Your task to perform on an android device: Search for flights from Buenos aires to Seoul Image 0: 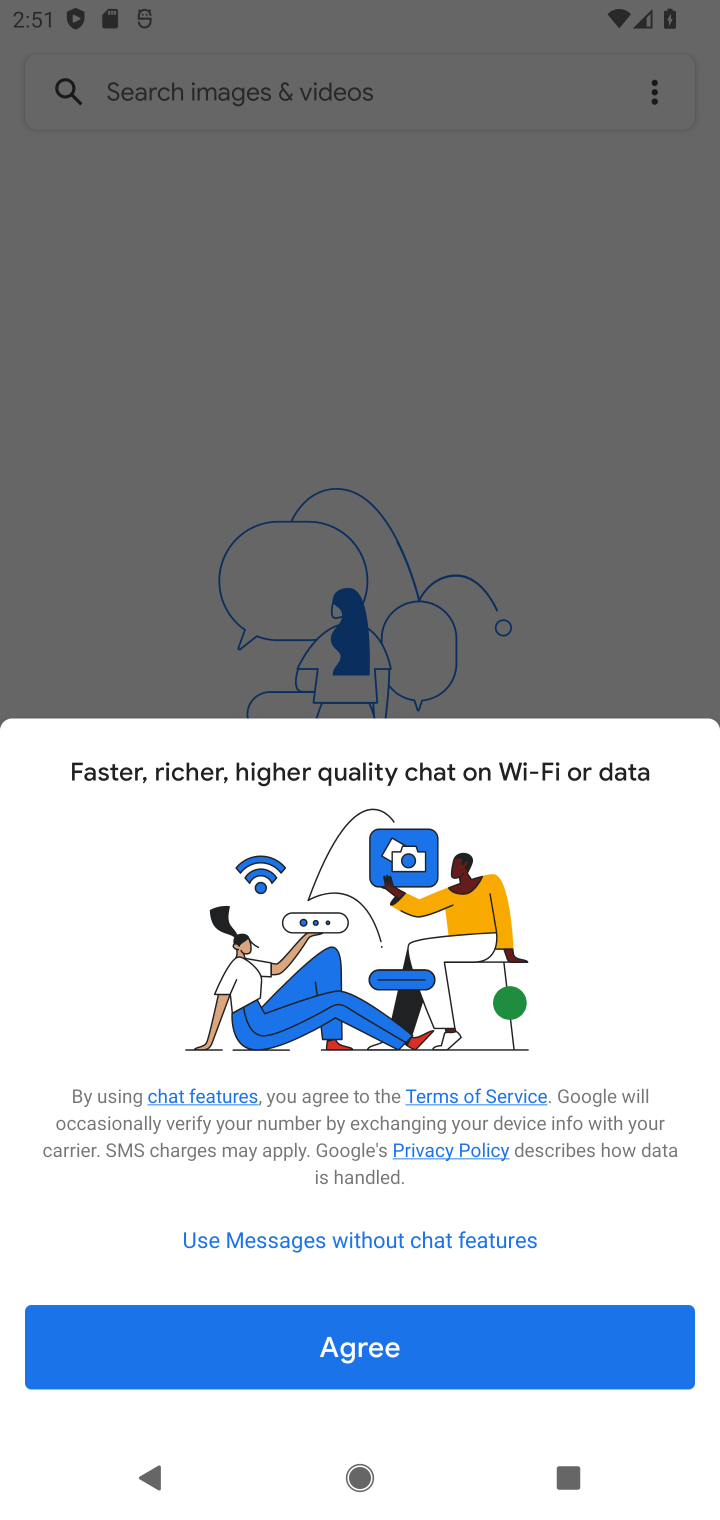
Step 0: press home button
Your task to perform on an android device: Search for flights from Buenos aires to Seoul Image 1: 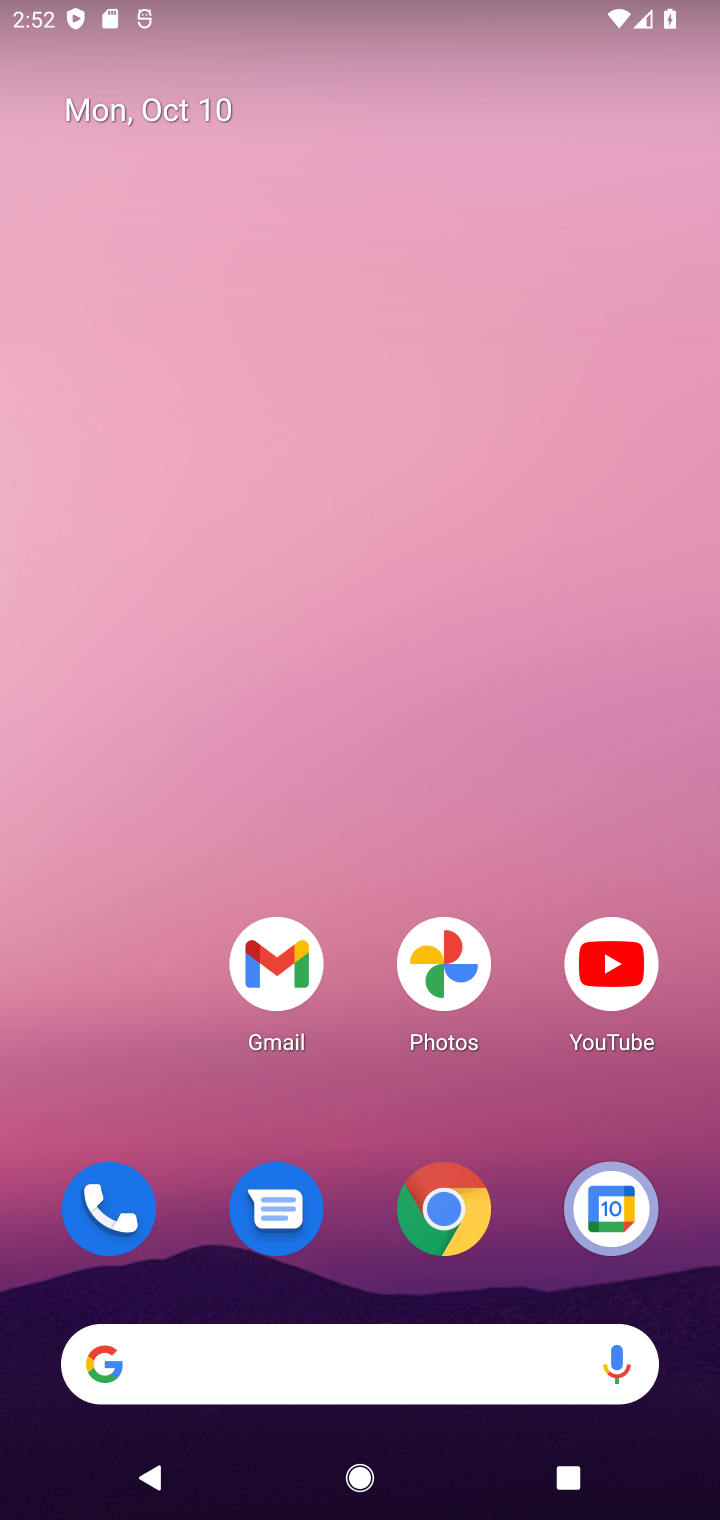
Step 1: click (446, 1206)
Your task to perform on an android device: Search for flights from Buenos aires to Seoul Image 2: 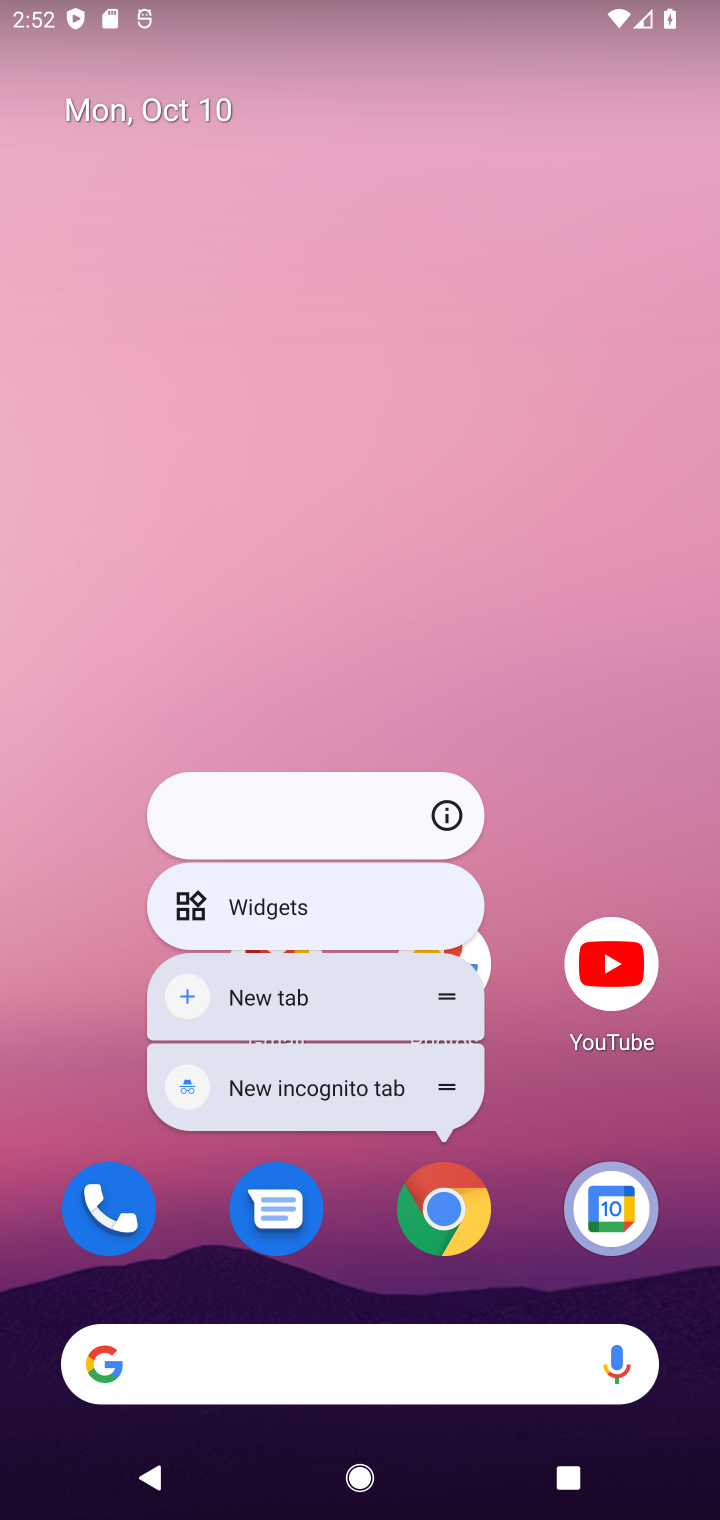
Step 2: click (446, 1206)
Your task to perform on an android device: Search for flights from Buenos aires to Seoul Image 3: 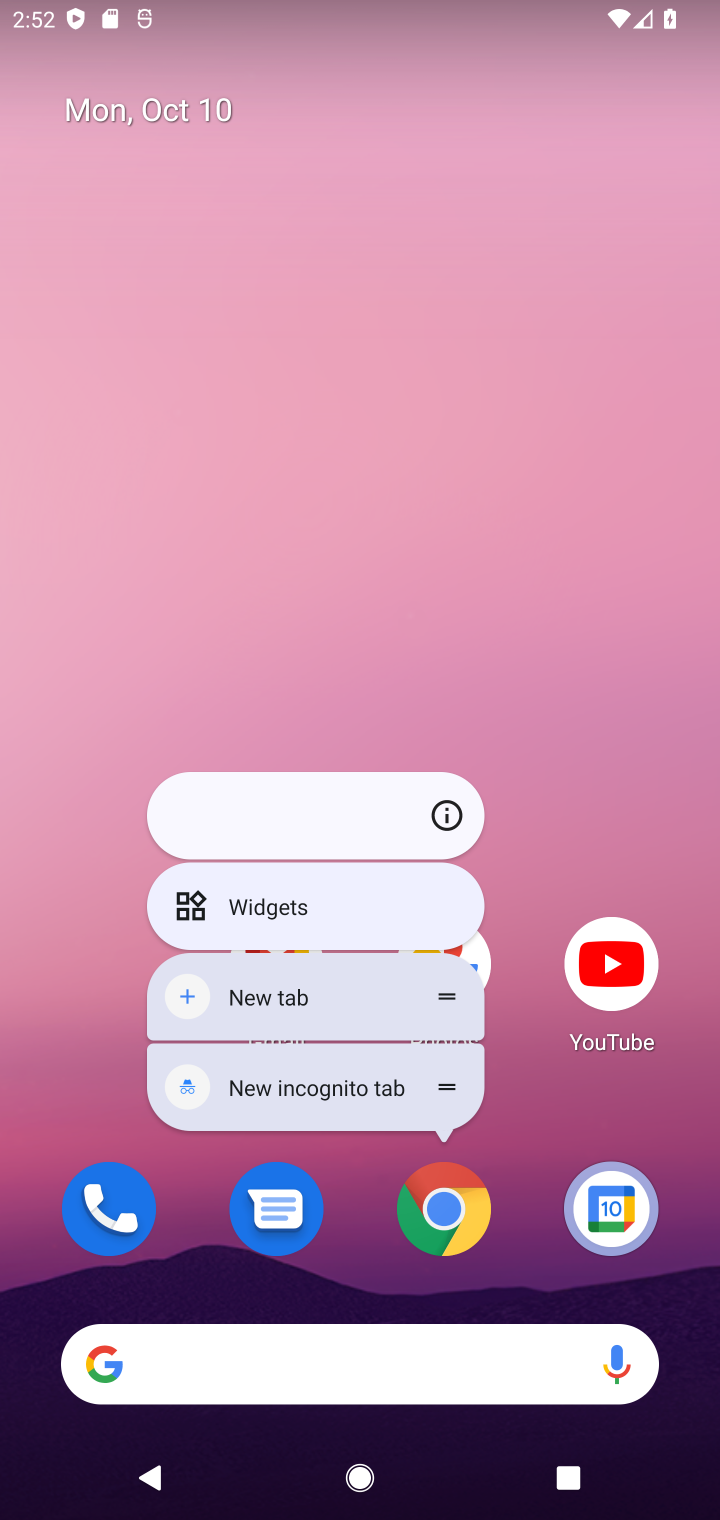
Step 3: click (463, 1244)
Your task to perform on an android device: Search for flights from Buenos aires to Seoul Image 4: 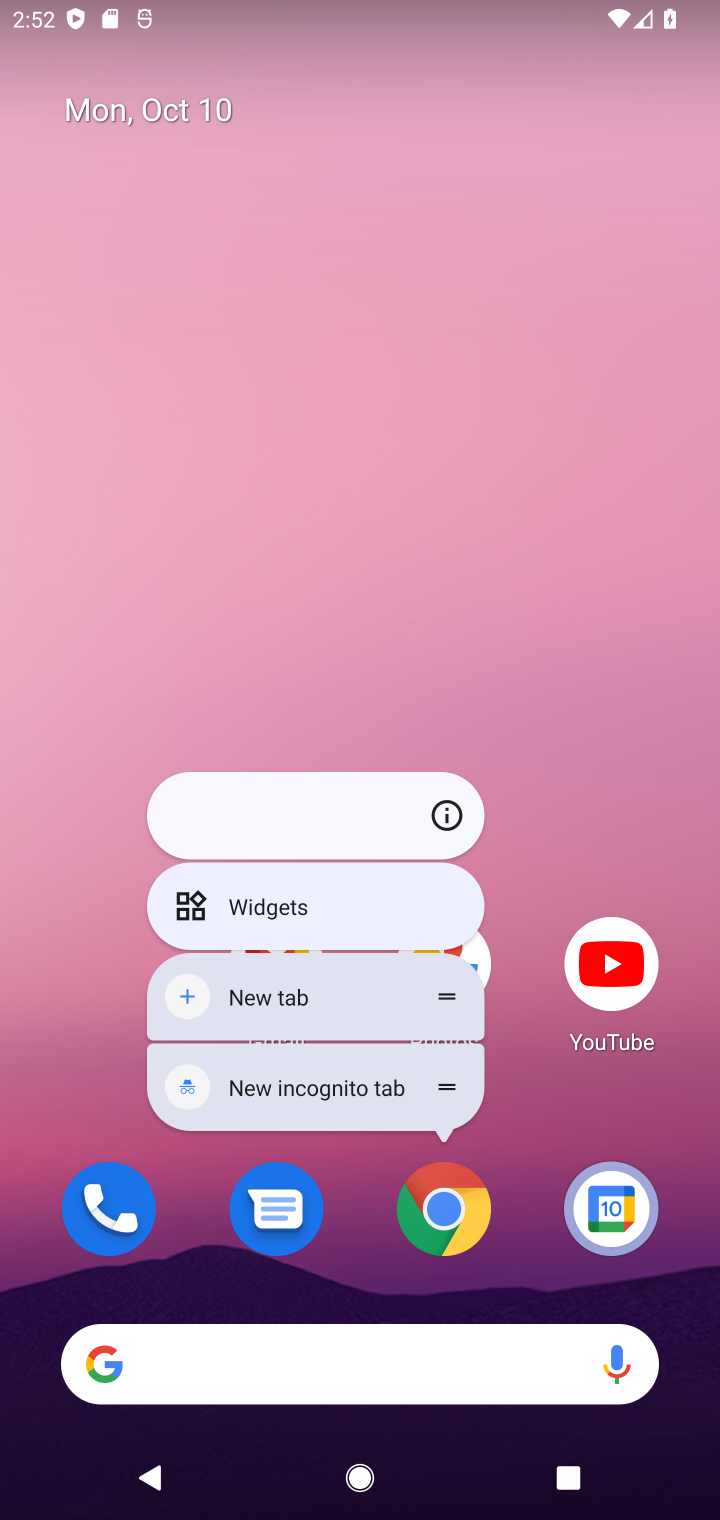
Step 4: click (463, 1244)
Your task to perform on an android device: Search for flights from Buenos aires to Seoul Image 5: 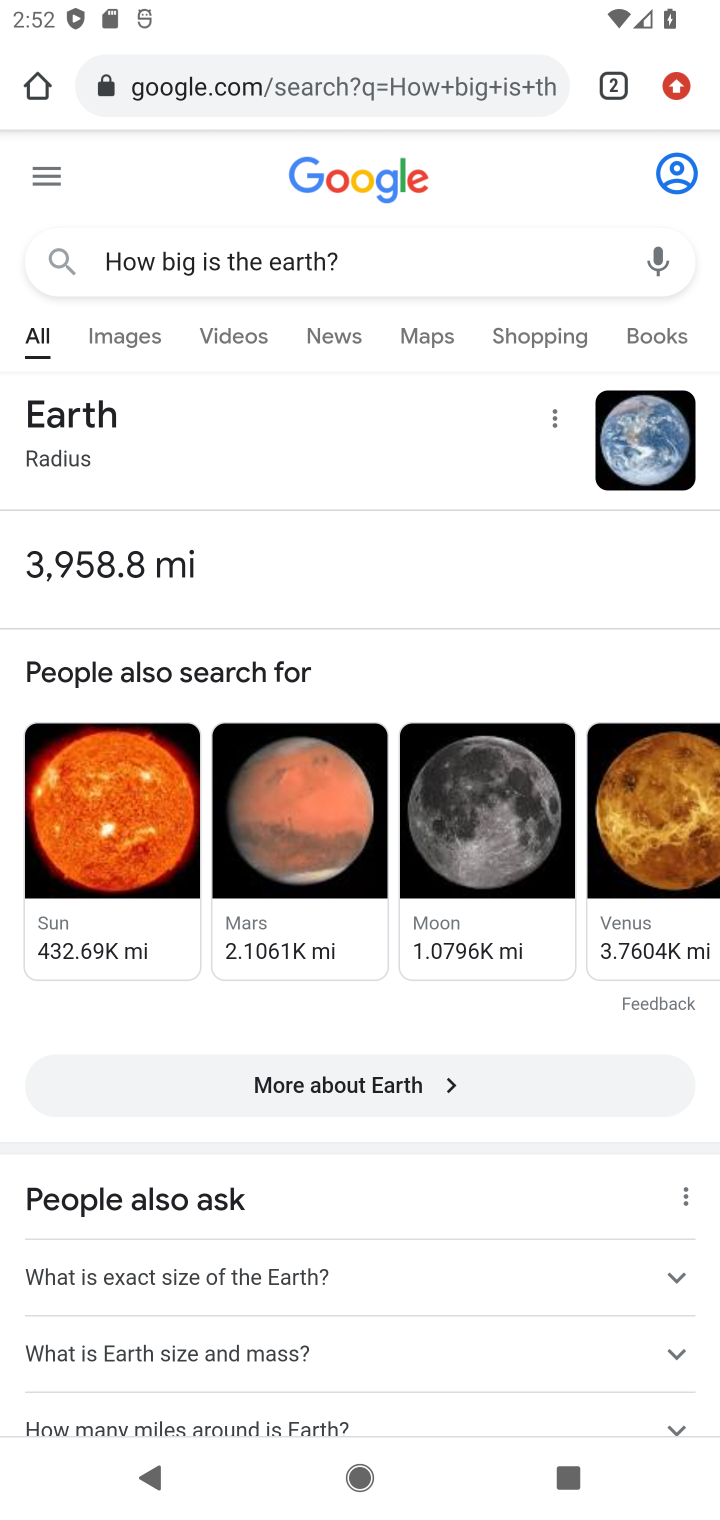
Step 5: click (492, 249)
Your task to perform on an android device: Search for flights from Buenos aires to Seoul Image 6: 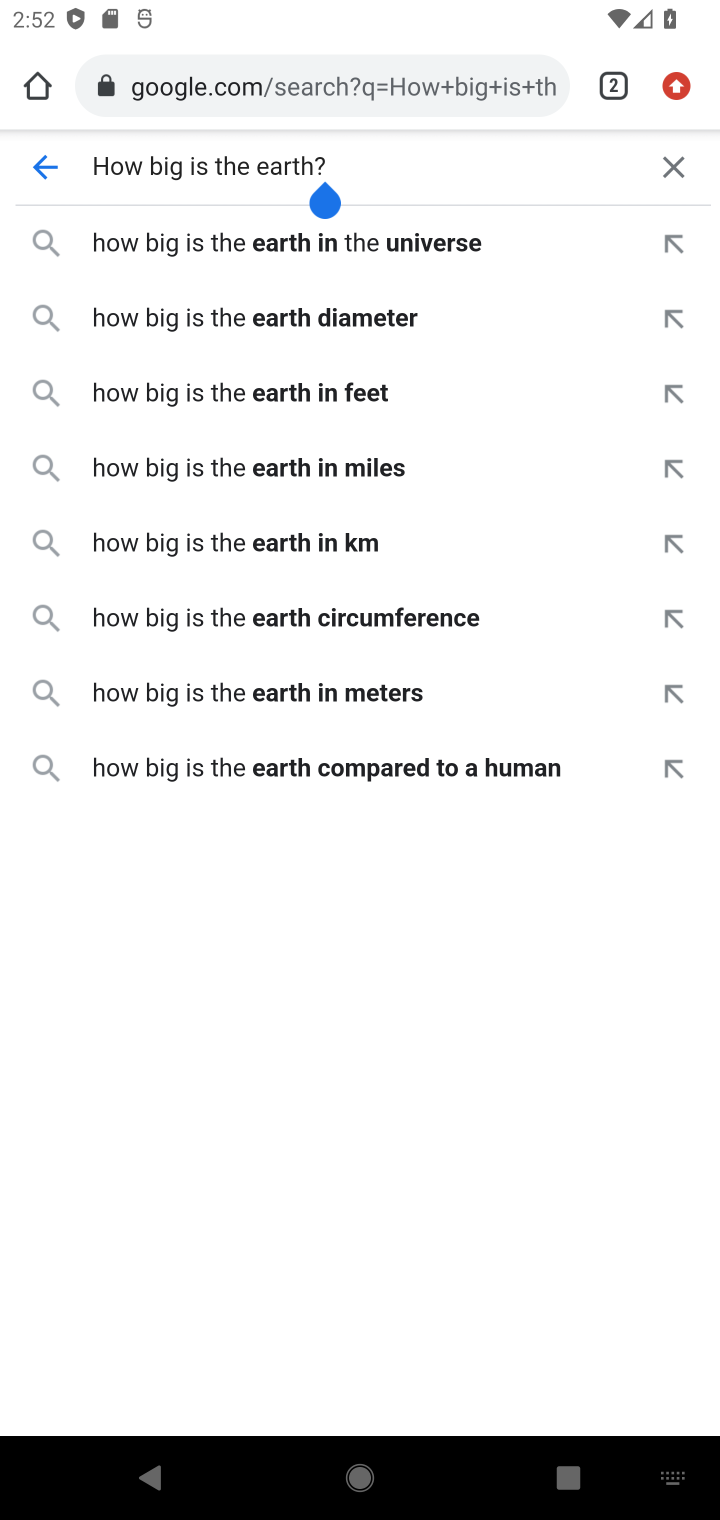
Step 6: click (667, 167)
Your task to perform on an android device: Search for flights from Buenos aires to Seoul Image 7: 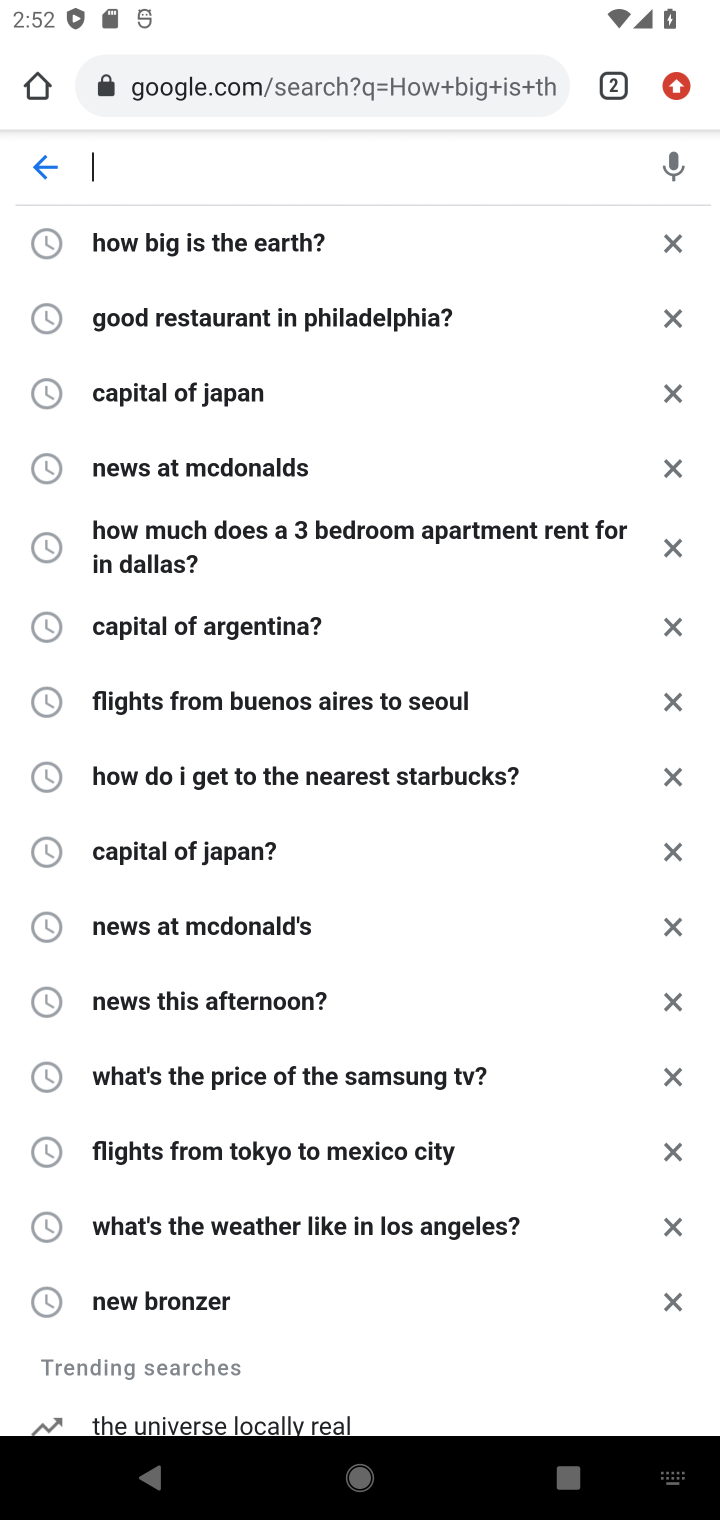
Step 7: type " flights from Buenos aires to Seoul"
Your task to perform on an android device: Search for flights from Buenos aires to Seoul Image 8: 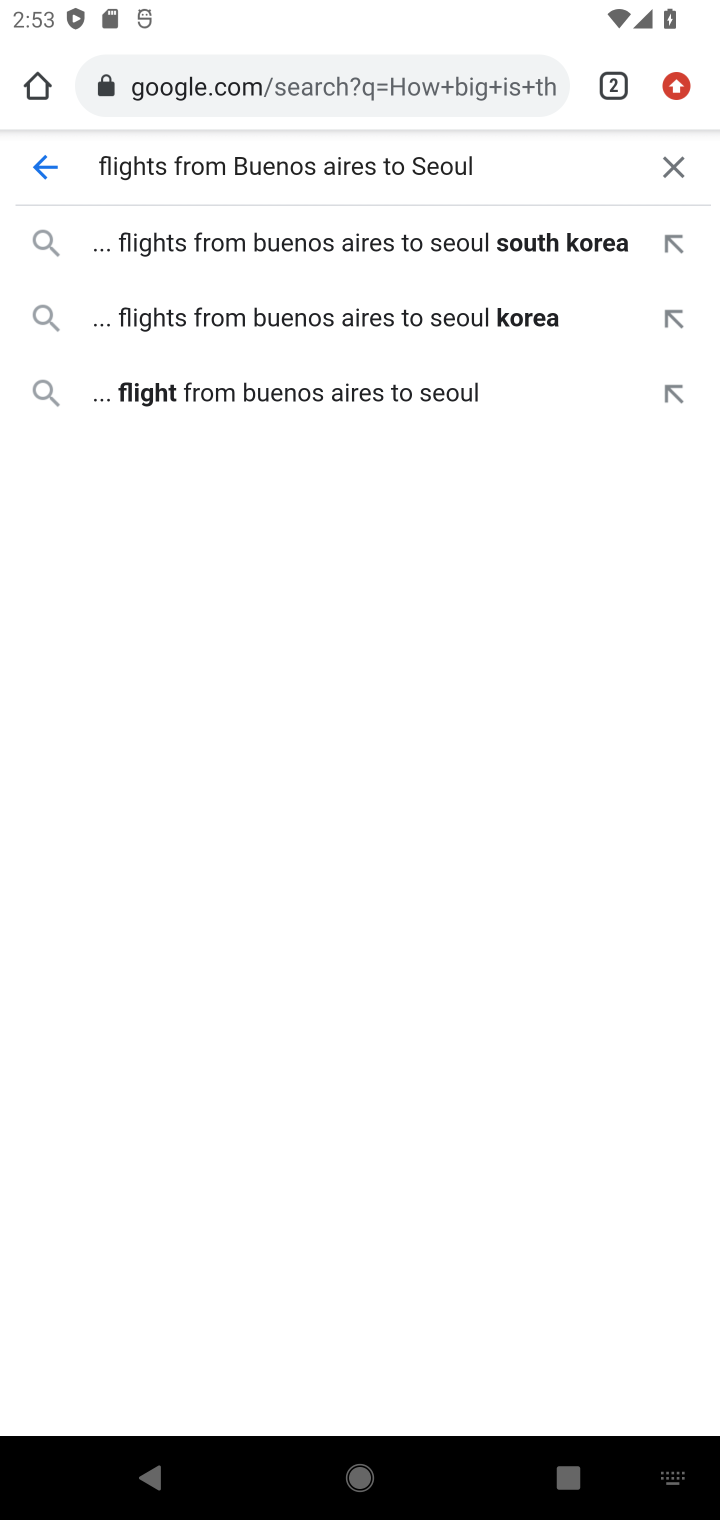
Step 8: press enter
Your task to perform on an android device: Search for flights from Buenos aires to Seoul Image 9: 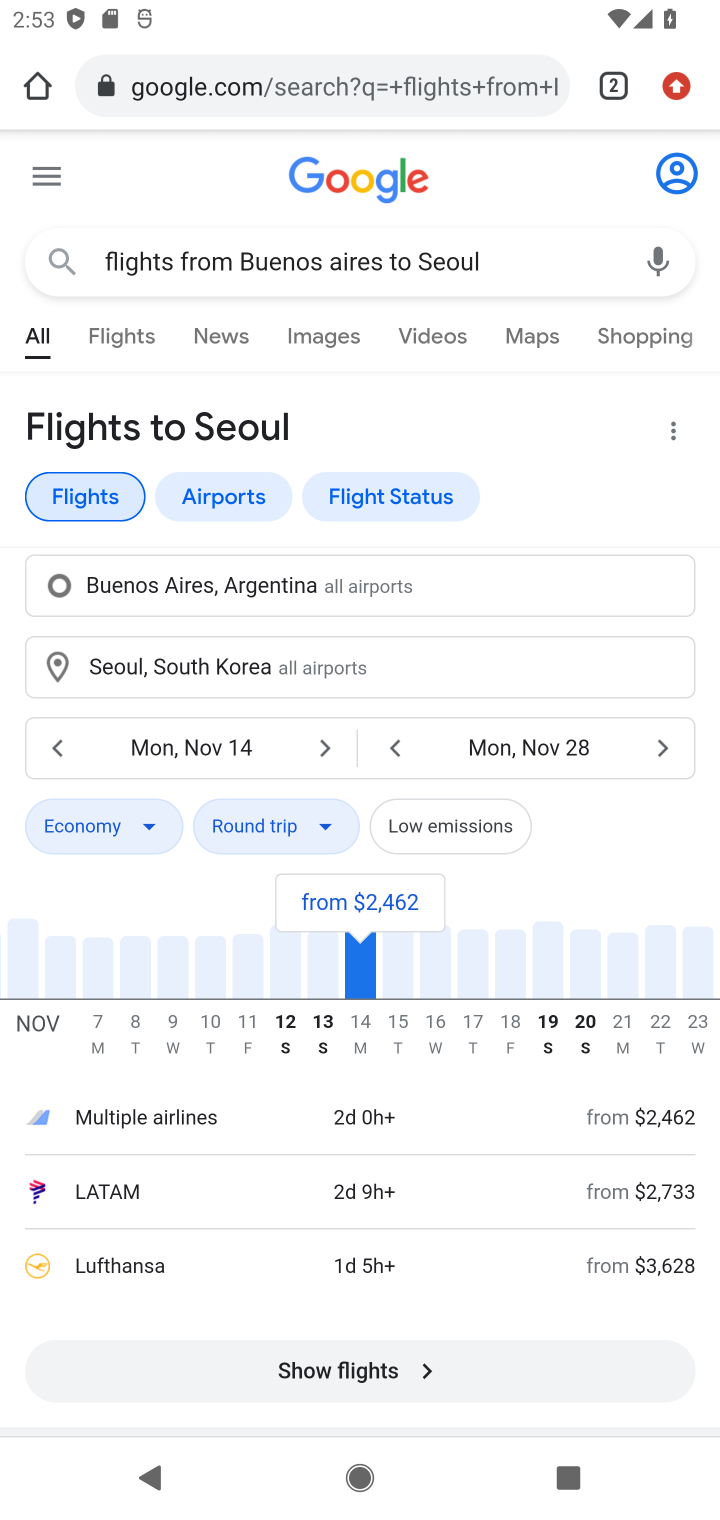
Step 9: press enter
Your task to perform on an android device: Search for flights from Buenos aires to Seoul Image 10: 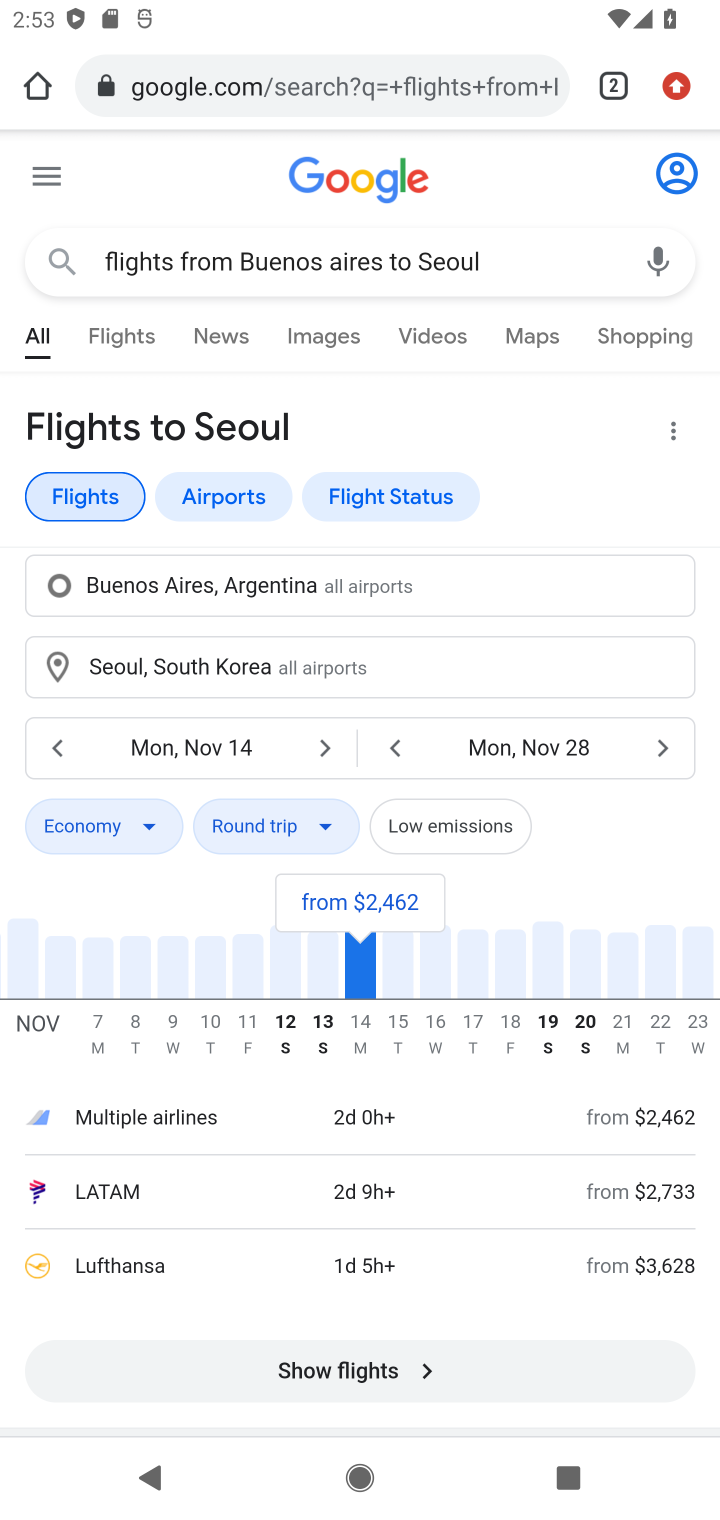
Step 10: task complete